Your task to perform on an android device: Is it going to rain this weekend? Image 0: 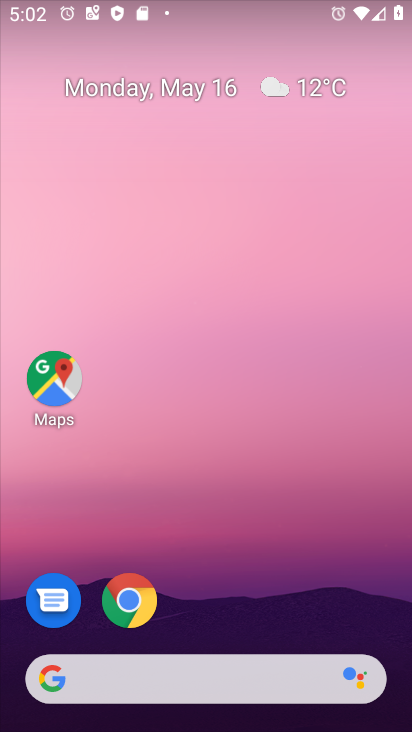
Step 0: drag from (231, 632) to (256, 288)
Your task to perform on an android device: Is it going to rain this weekend? Image 1: 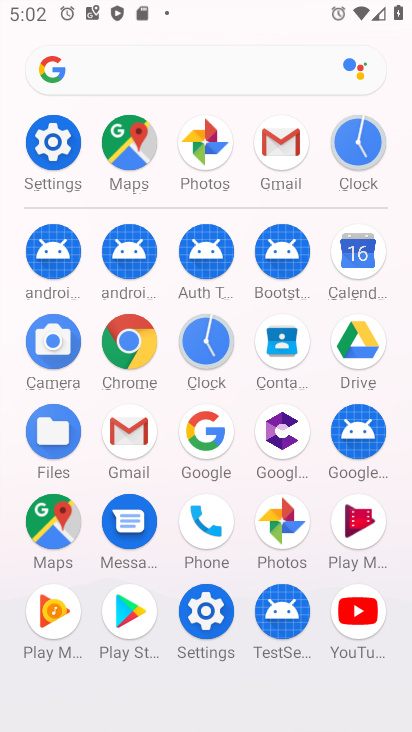
Step 1: click (194, 443)
Your task to perform on an android device: Is it going to rain this weekend? Image 2: 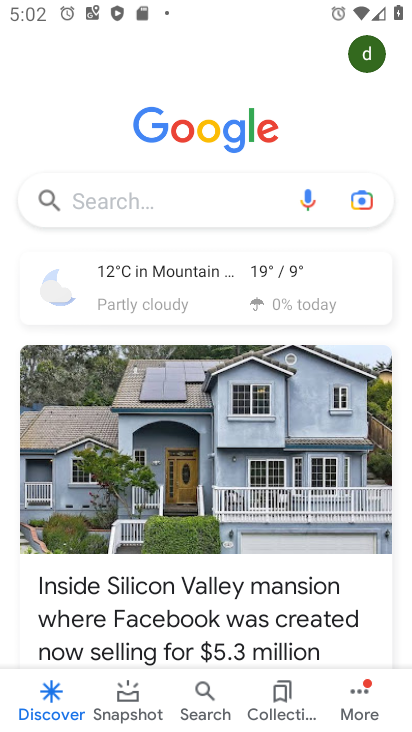
Step 2: click (118, 208)
Your task to perform on an android device: Is it going to rain this weekend? Image 3: 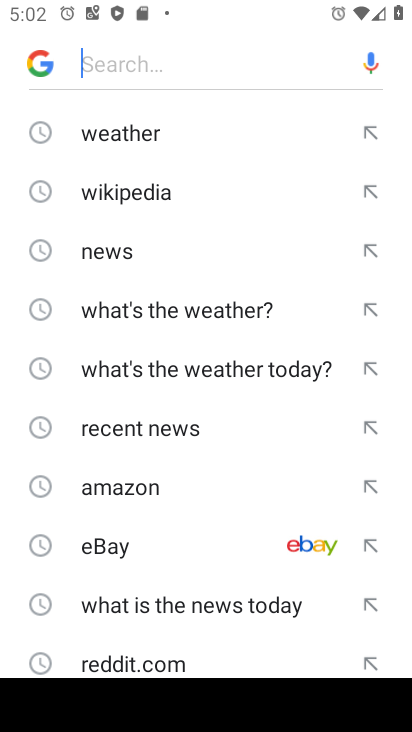
Step 3: drag from (172, 647) to (172, 280)
Your task to perform on an android device: Is it going to rain this weekend? Image 4: 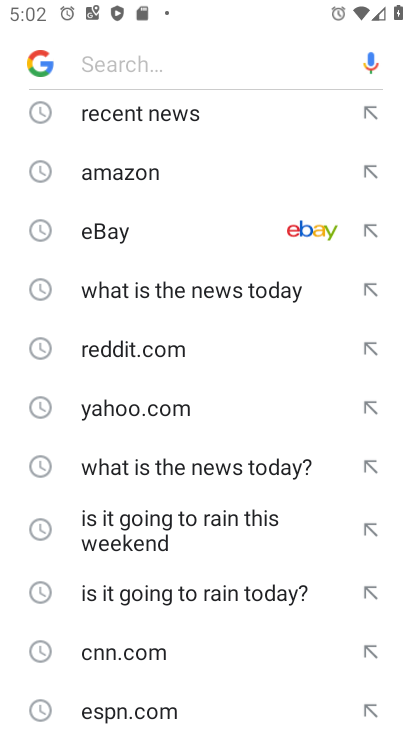
Step 4: click (130, 598)
Your task to perform on an android device: Is it going to rain this weekend? Image 5: 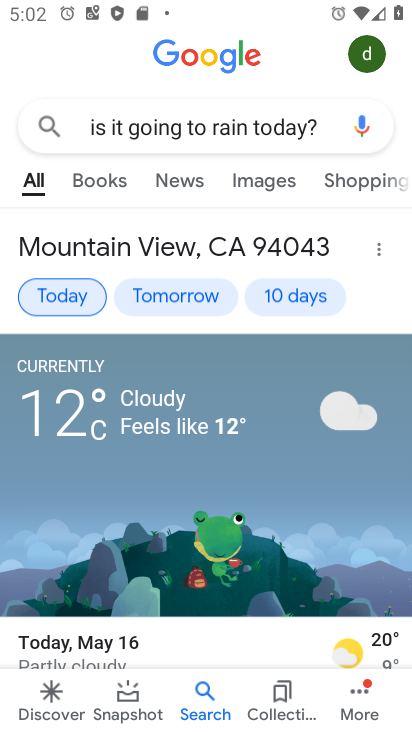
Step 5: click (302, 292)
Your task to perform on an android device: Is it going to rain this weekend? Image 6: 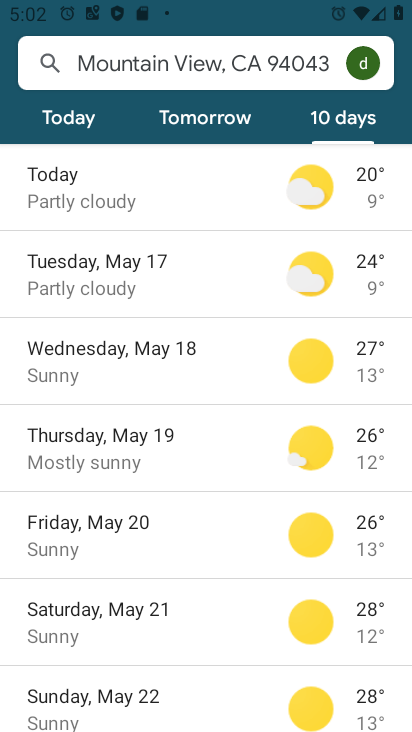
Step 6: task complete